Your task to perform on an android device: Go to wifi settings Image 0: 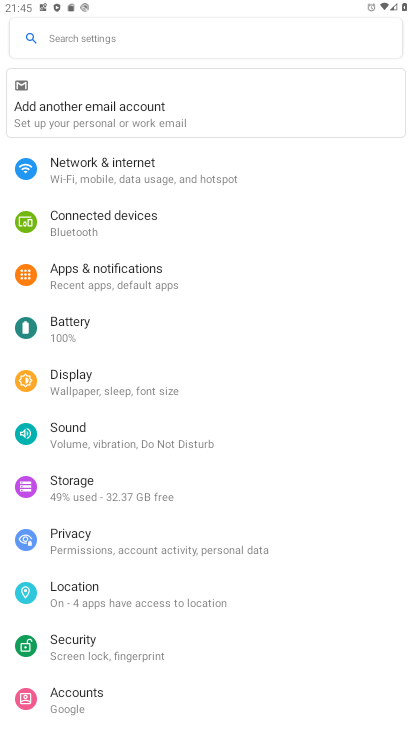
Step 0: drag from (158, 309) to (235, 643)
Your task to perform on an android device: Go to wifi settings Image 1: 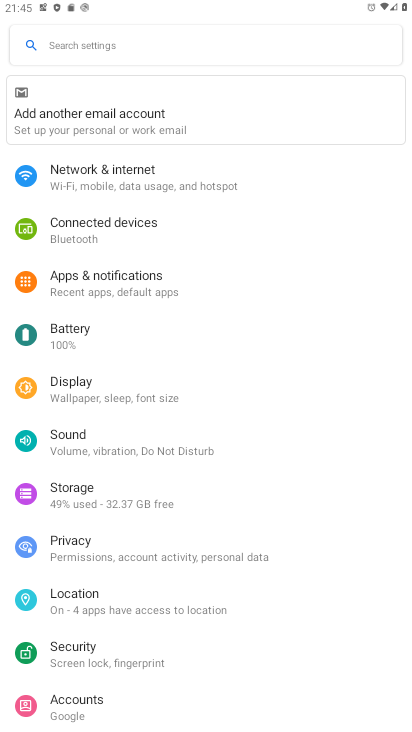
Step 1: click (129, 179)
Your task to perform on an android device: Go to wifi settings Image 2: 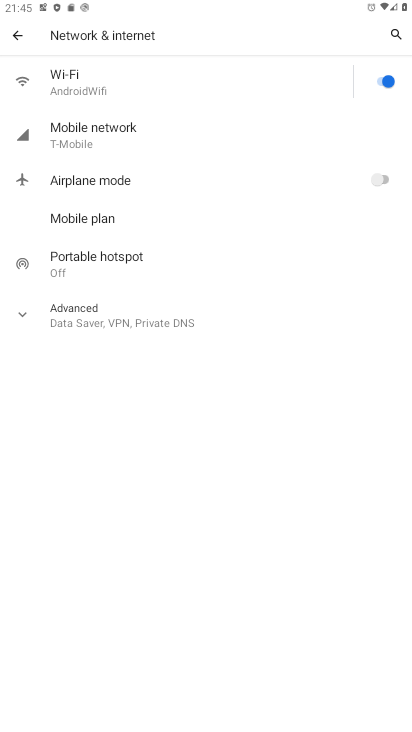
Step 2: click (149, 86)
Your task to perform on an android device: Go to wifi settings Image 3: 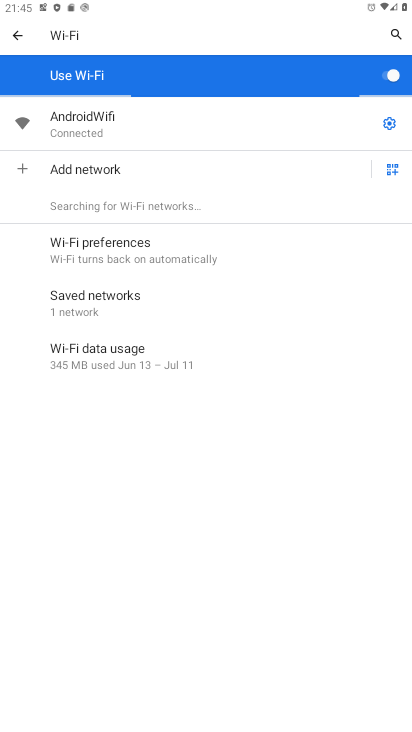
Step 3: click (388, 119)
Your task to perform on an android device: Go to wifi settings Image 4: 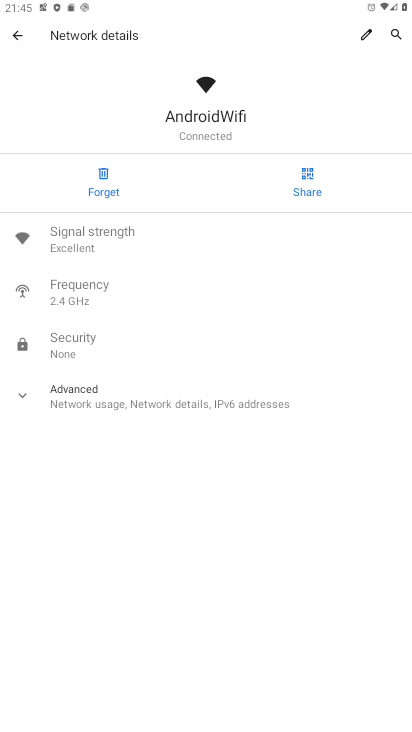
Step 4: task complete